Your task to perform on an android device: uninstall "Life360: Find Family & Friends" Image 0: 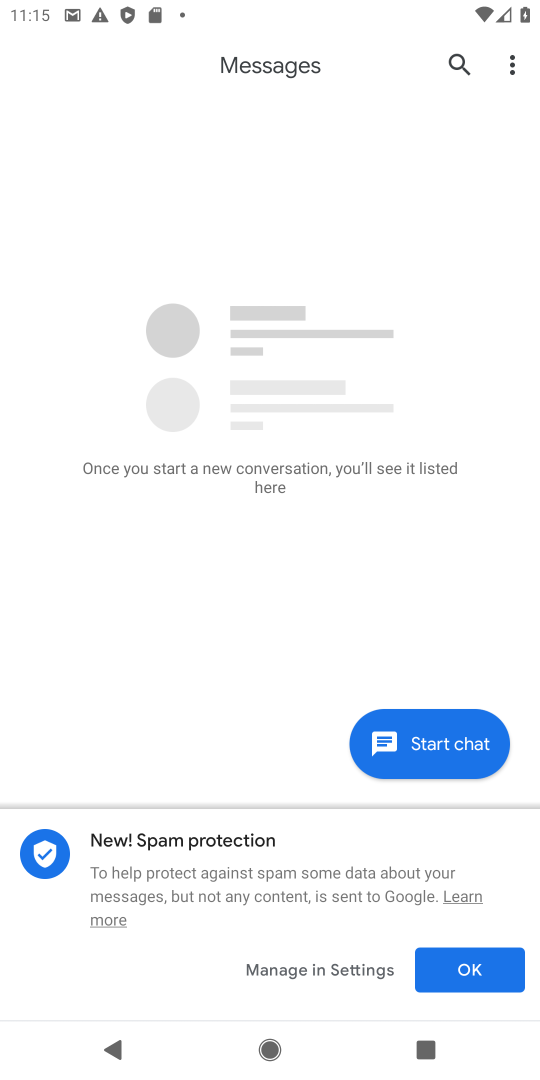
Step 0: press home button
Your task to perform on an android device: uninstall "Life360: Find Family & Friends" Image 1: 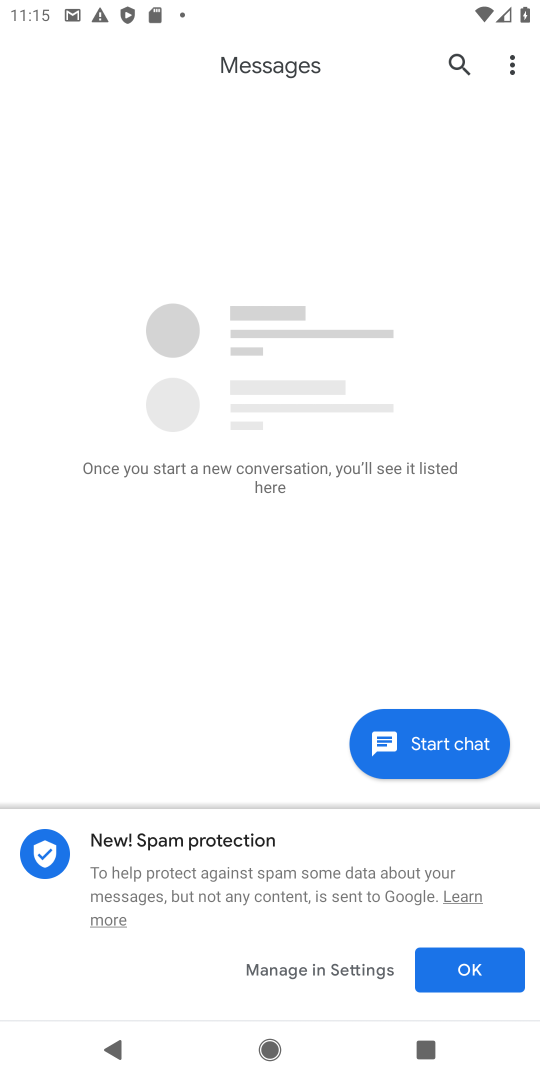
Step 1: press home button
Your task to perform on an android device: uninstall "Life360: Find Family & Friends" Image 2: 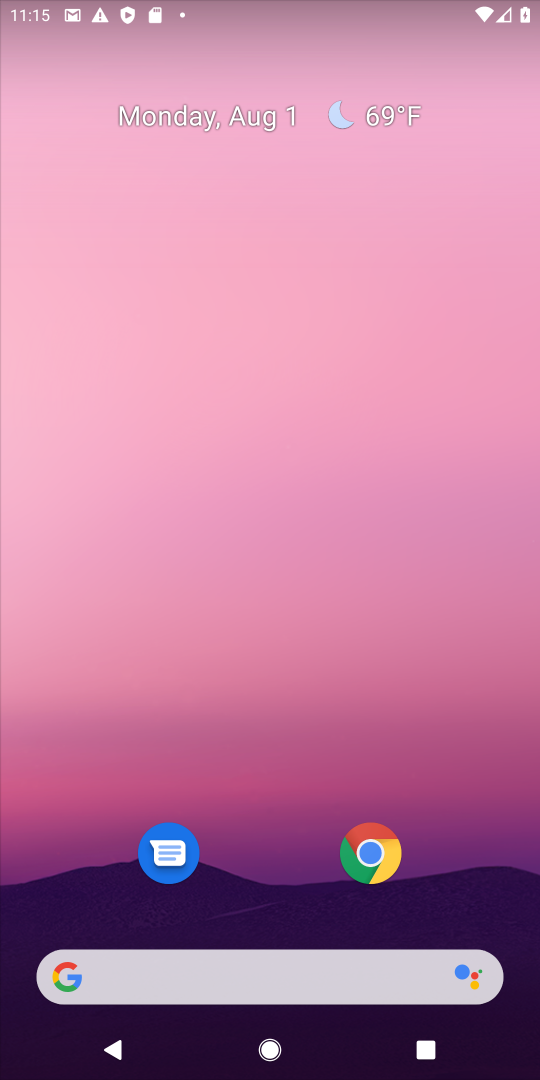
Step 2: click (254, 855)
Your task to perform on an android device: uninstall "Life360: Find Family & Friends" Image 3: 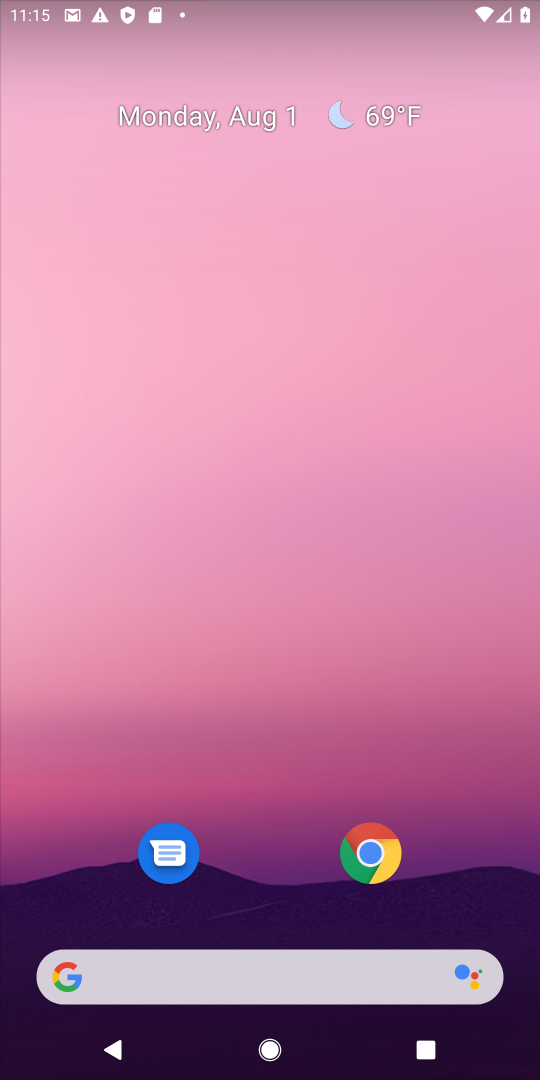
Step 3: click (254, 855)
Your task to perform on an android device: uninstall "Life360: Find Family & Friends" Image 4: 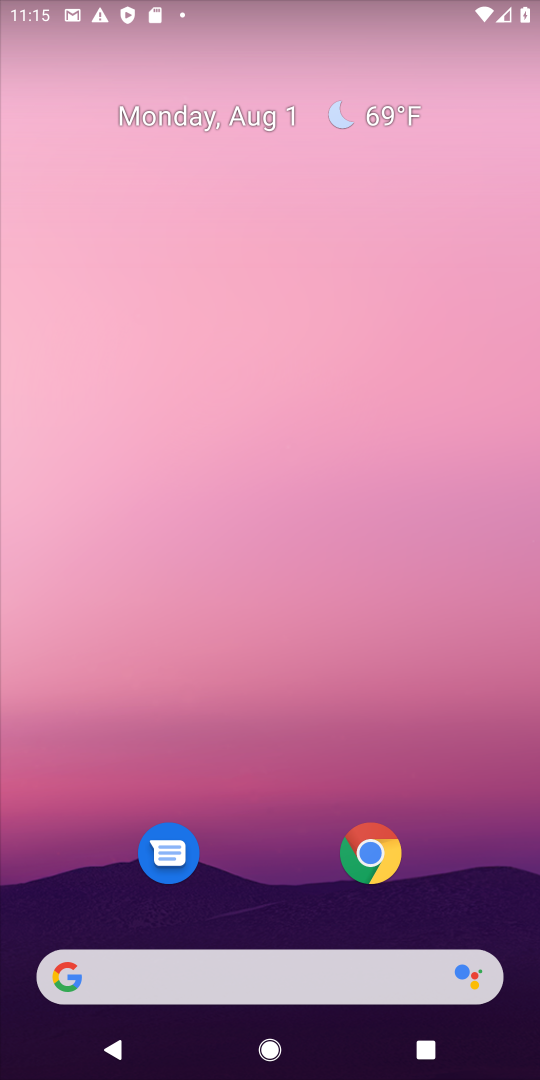
Step 4: drag from (263, 740) to (326, 2)
Your task to perform on an android device: uninstall "Life360: Find Family & Friends" Image 5: 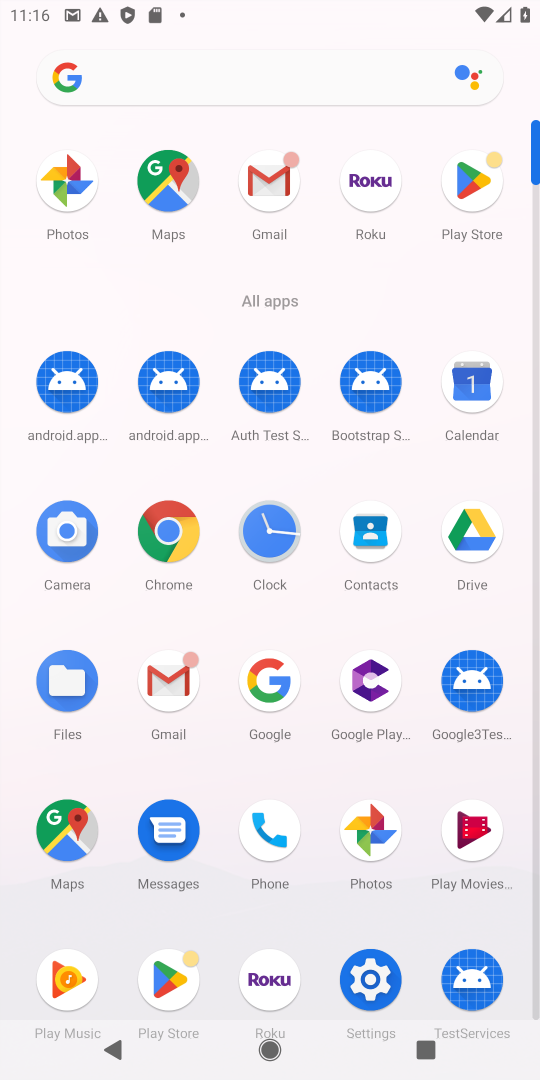
Step 5: click (452, 216)
Your task to perform on an android device: uninstall "Life360: Find Family & Friends" Image 6: 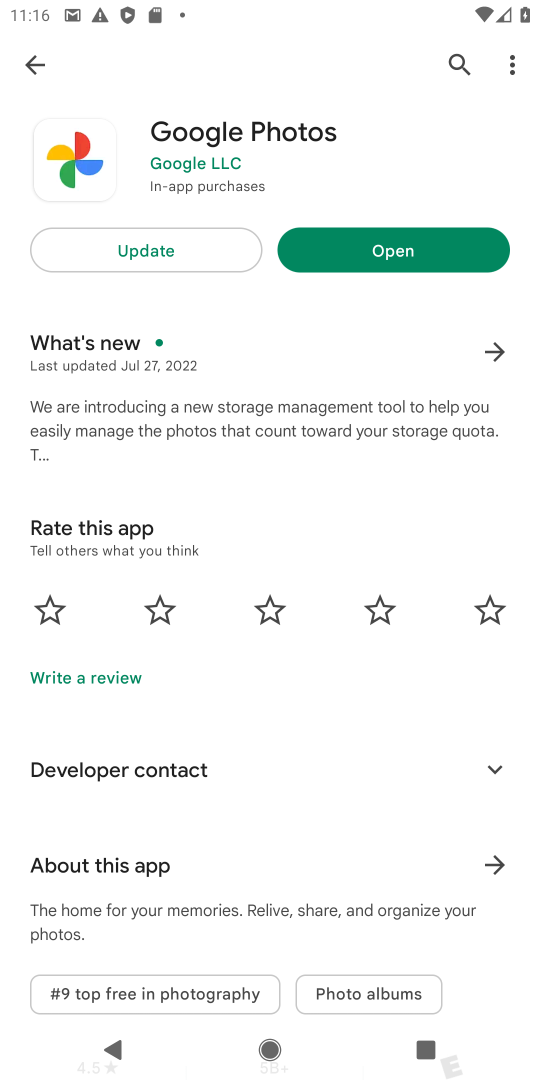
Step 6: click (453, 65)
Your task to perform on an android device: uninstall "Life360: Find Family & Friends" Image 7: 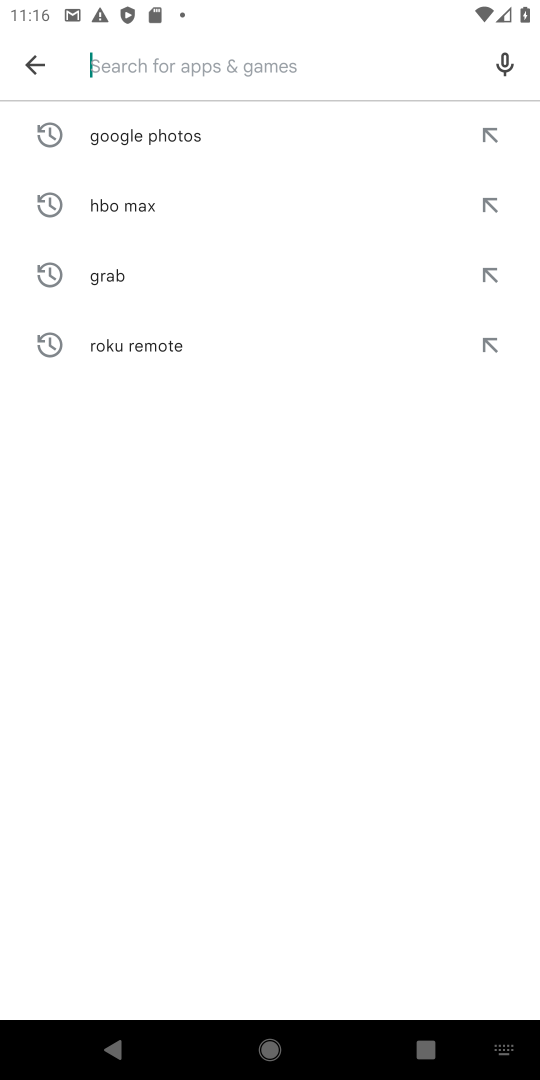
Step 7: click (423, 49)
Your task to perform on an android device: uninstall "Life360: Find Family & Friends" Image 8: 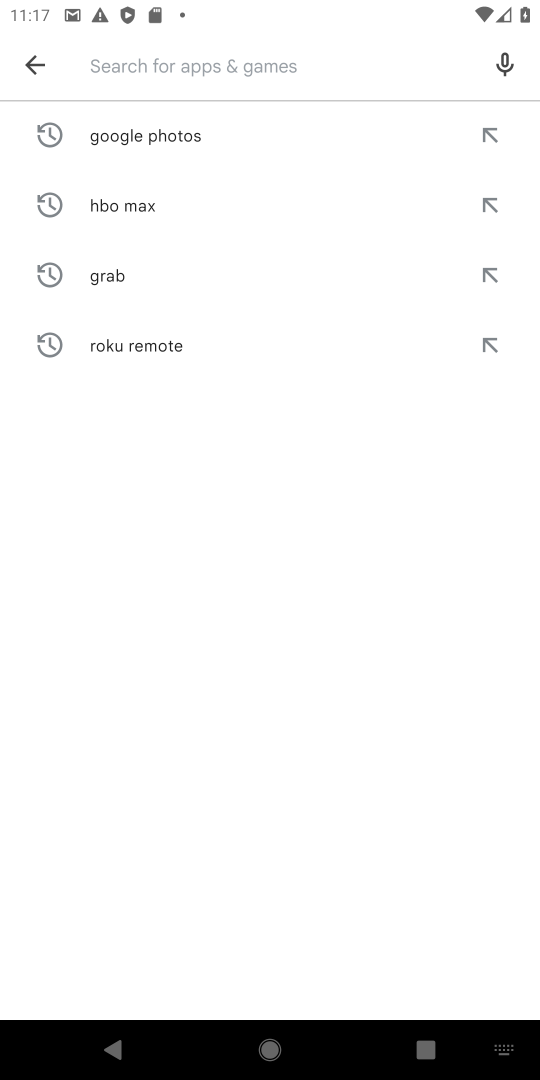
Step 8: type "Live360; Find Family & Friends¨"
Your task to perform on an android device: uninstall "Life360: Find Family & Friends" Image 9: 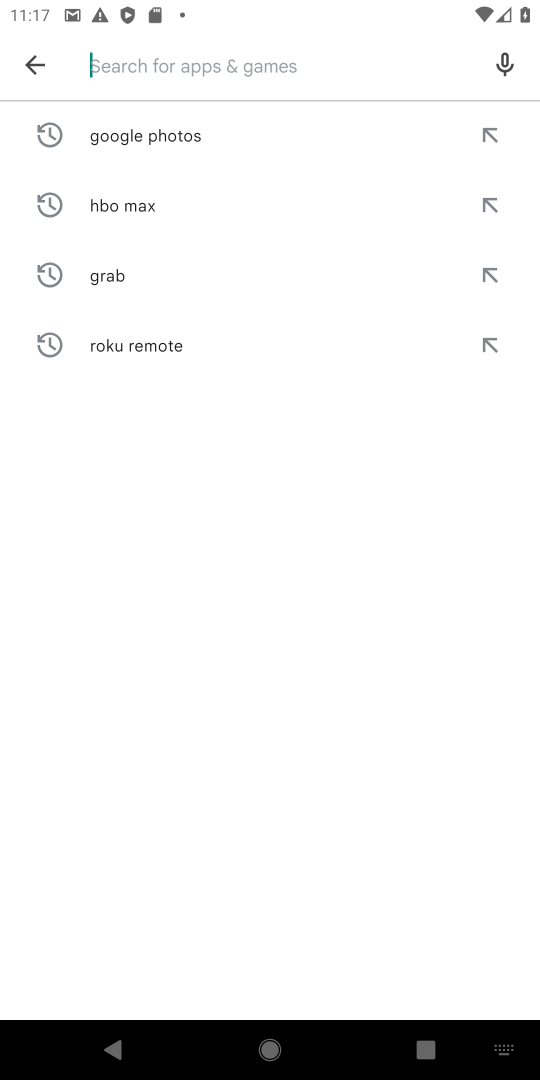
Step 9: click (122, 93)
Your task to perform on an android device: uninstall "Life360: Find Family & Friends" Image 10: 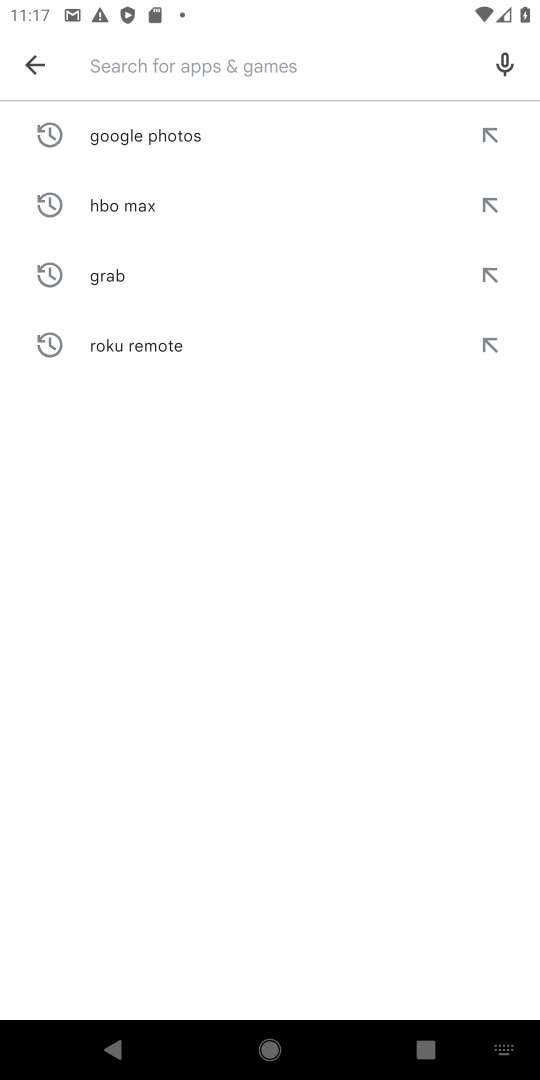
Step 10: click (177, 59)
Your task to perform on an android device: uninstall "Life360: Find Family & Friends" Image 11: 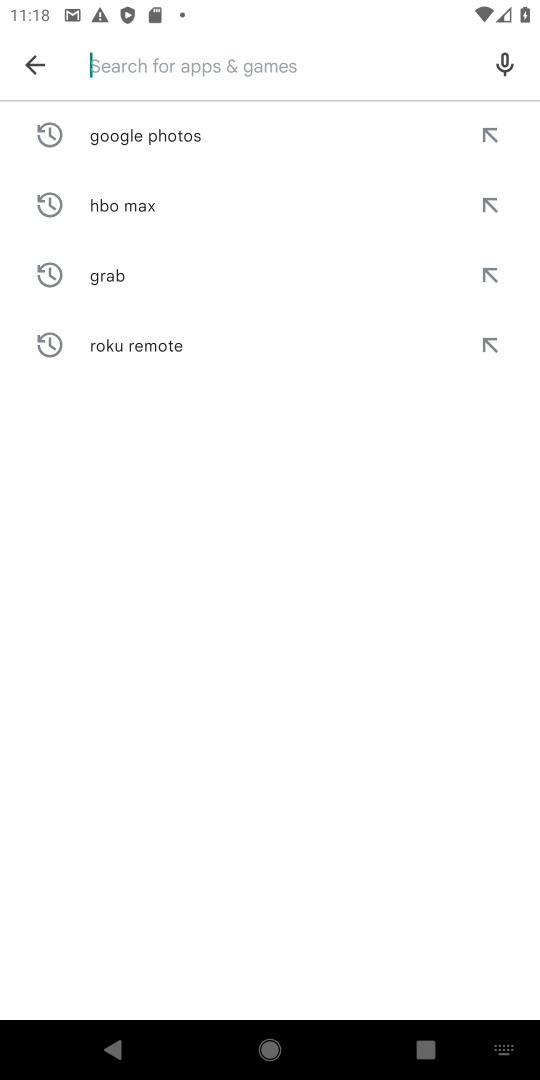
Step 11: type "life360; Find Family Frineds"
Your task to perform on an android device: uninstall "Life360: Find Family & Friends" Image 12: 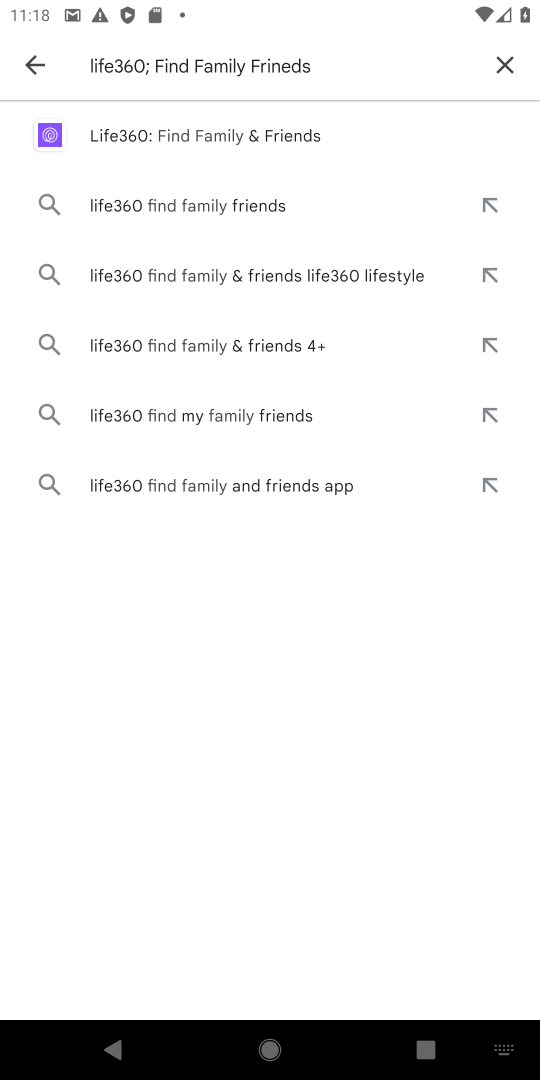
Step 12: click (144, 145)
Your task to perform on an android device: uninstall "Life360: Find Family & Friends" Image 13: 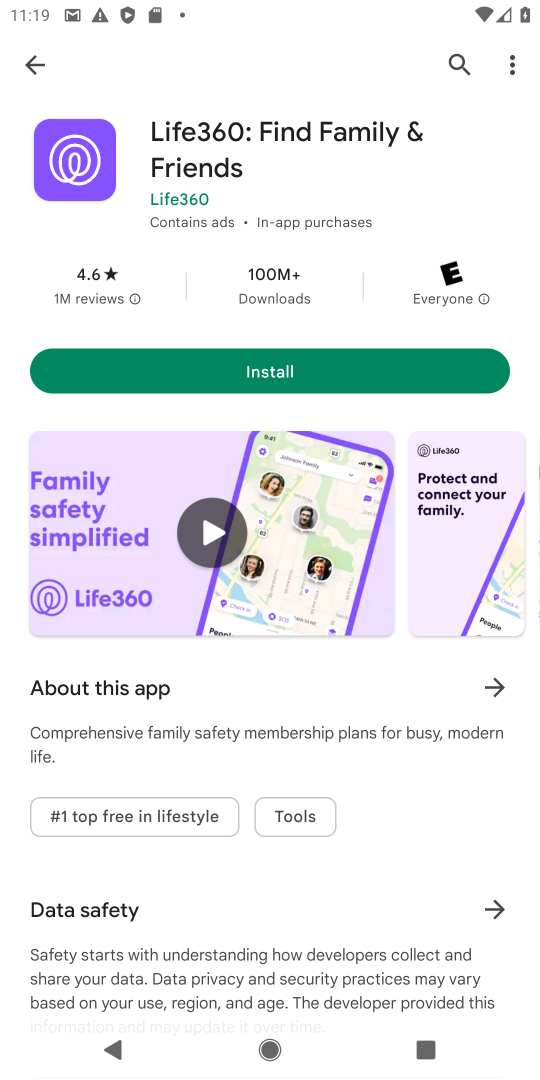
Step 13: task complete